Your task to perform on an android device: turn off location history Image 0: 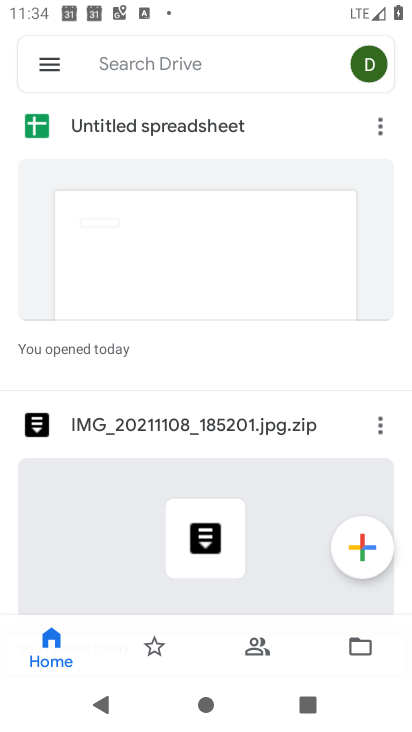
Step 0: press home button
Your task to perform on an android device: turn off location history Image 1: 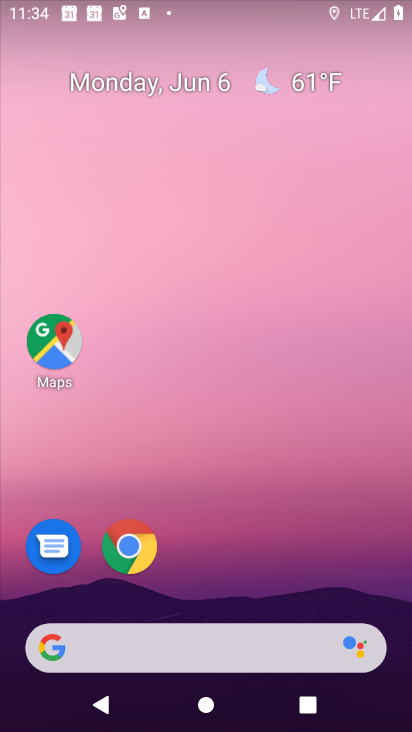
Step 1: click (55, 340)
Your task to perform on an android device: turn off location history Image 2: 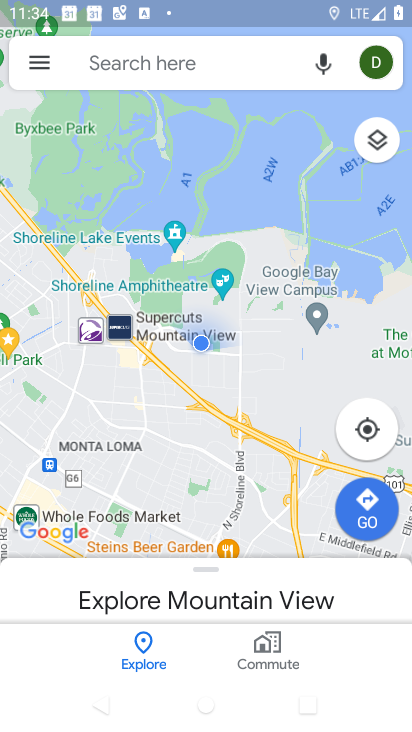
Step 2: click (38, 63)
Your task to perform on an android device: turn off location history Image 3: 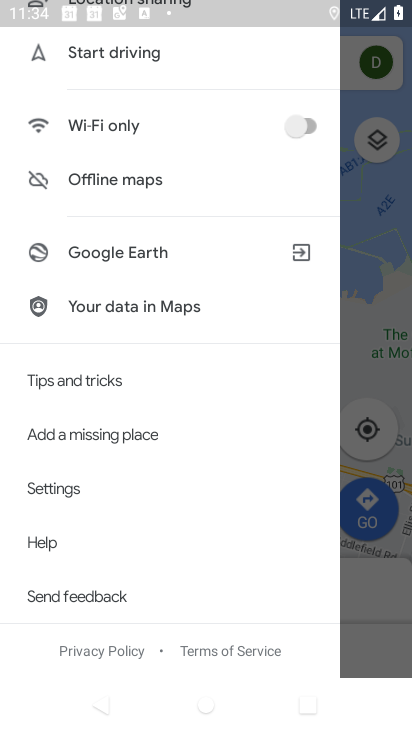
Step 3: click (44, 476)
Your task to perform on an android device: turn off location history Image 4: 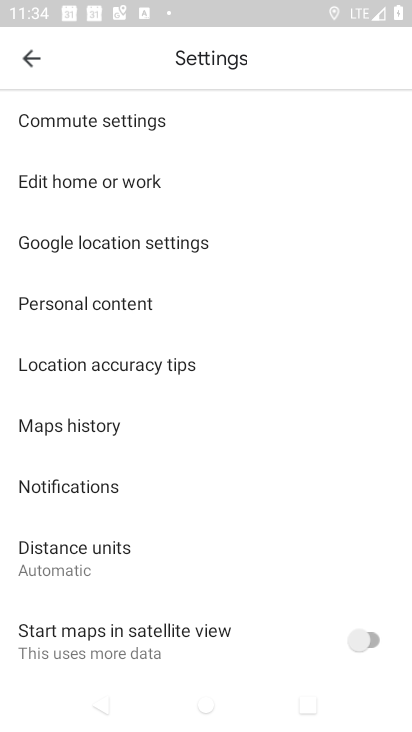
Step 4: click (104, 301)
Your task to perform on an android device: turn off location history Image 5: 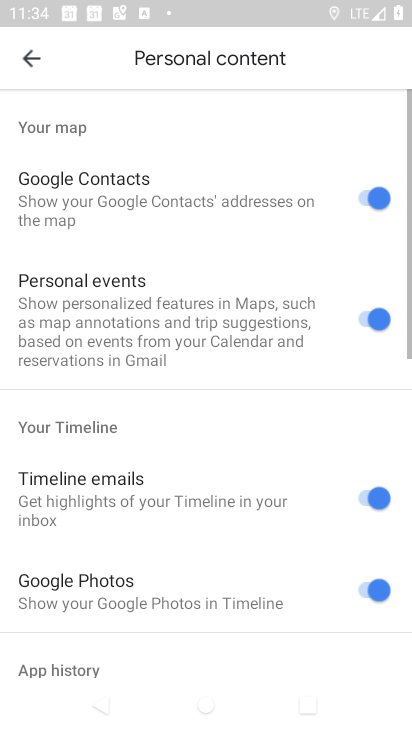
Step 5: task complete